Your task to perform on an android device: check data usage Image 0: 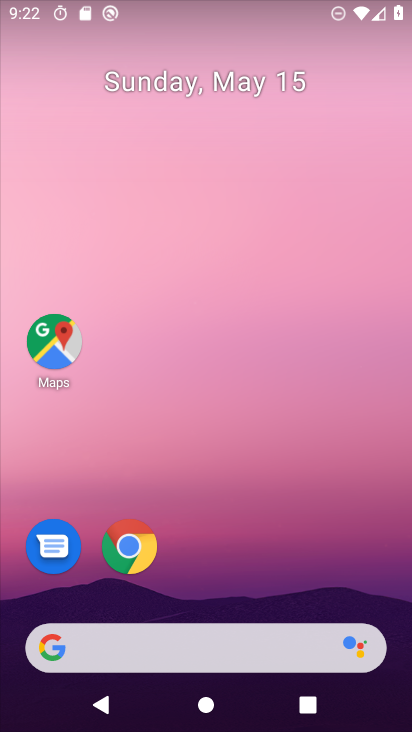
Step 0: drag from (258, 485) to (239, 40)
Your task to perform on an android device: check data usage Image 1: 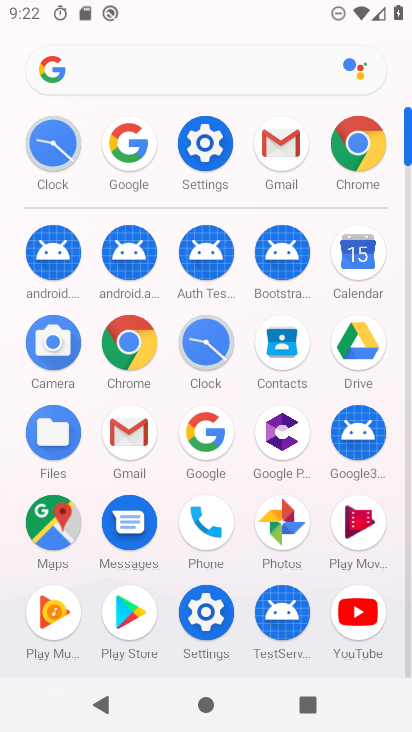
Step 1: click (198, 129)
Your task to perform on an android device: check data usage Image 2: 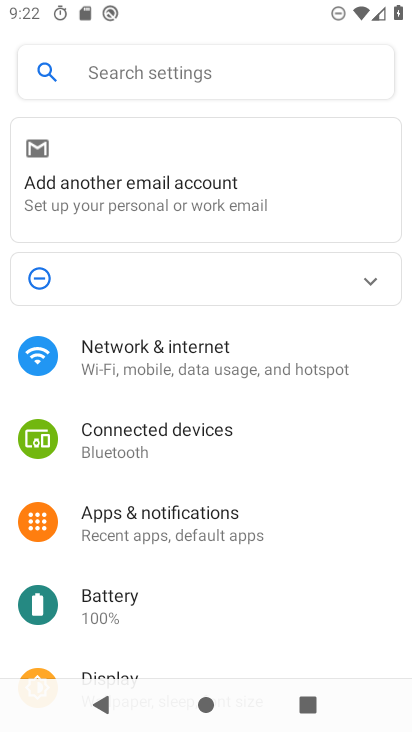
Step 2: click (172, 350)
Your task to perform on an android device: check data usage Image 3: 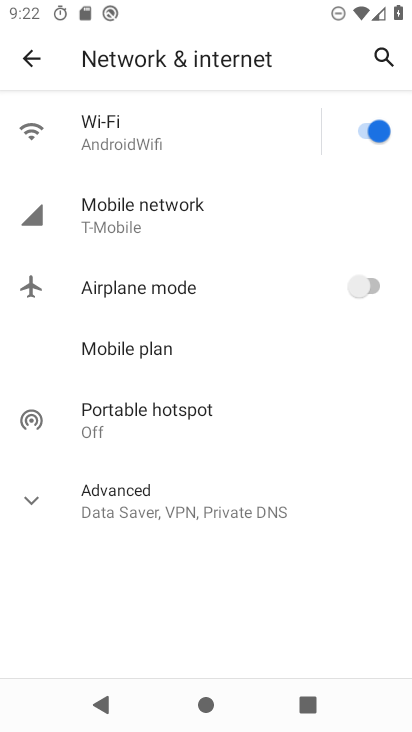
Step 3: click (187, 219)
Your task to perform on an android device: check data usage Image 4: 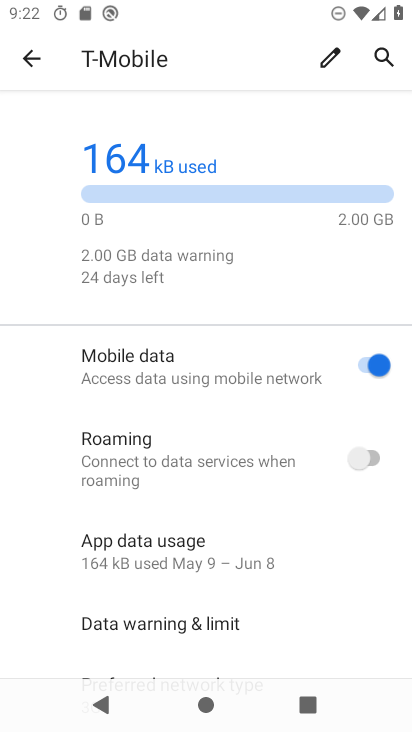
Step 4: task complete